Your task to perform on an android device: turn on improve location accuracy Image 0: 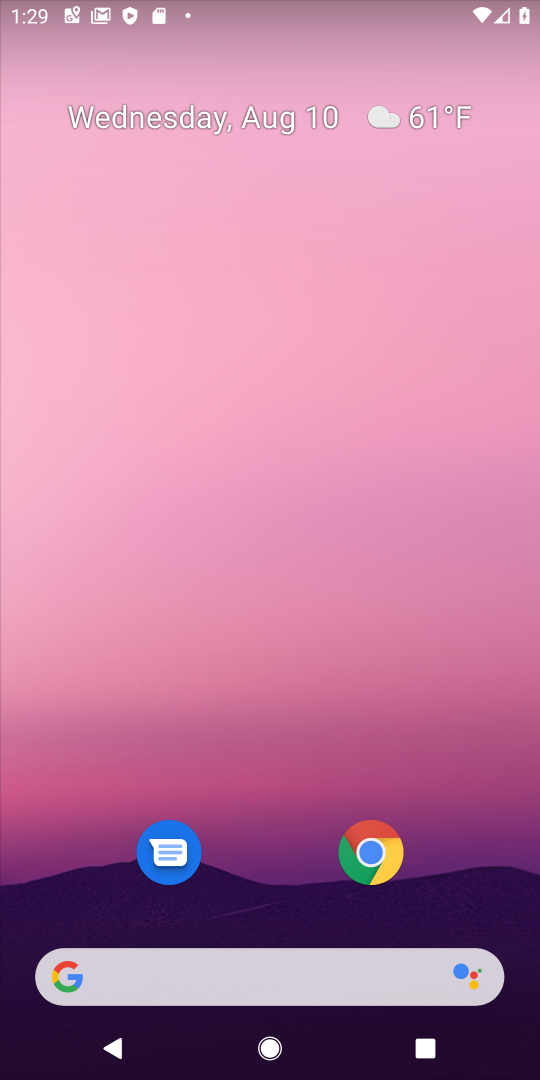
Step 0: drag from (251, 729) to (401, 49)
Your task to perform on an android device: turn on improve location accuracy Image 1: 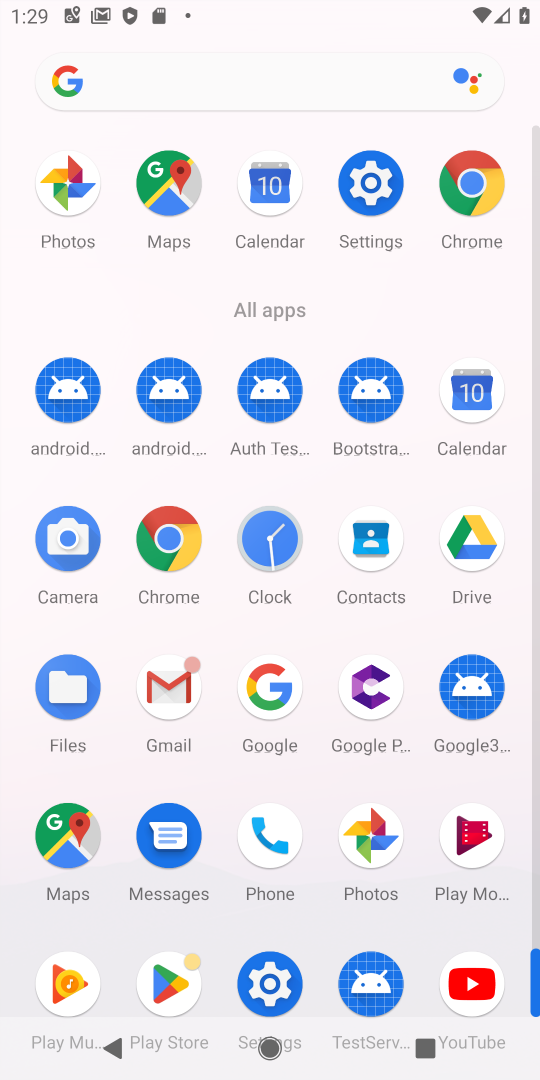
Step 1: click (380, 175)
Your task to perform on an android device: turn on improve location accuracy Image 2: 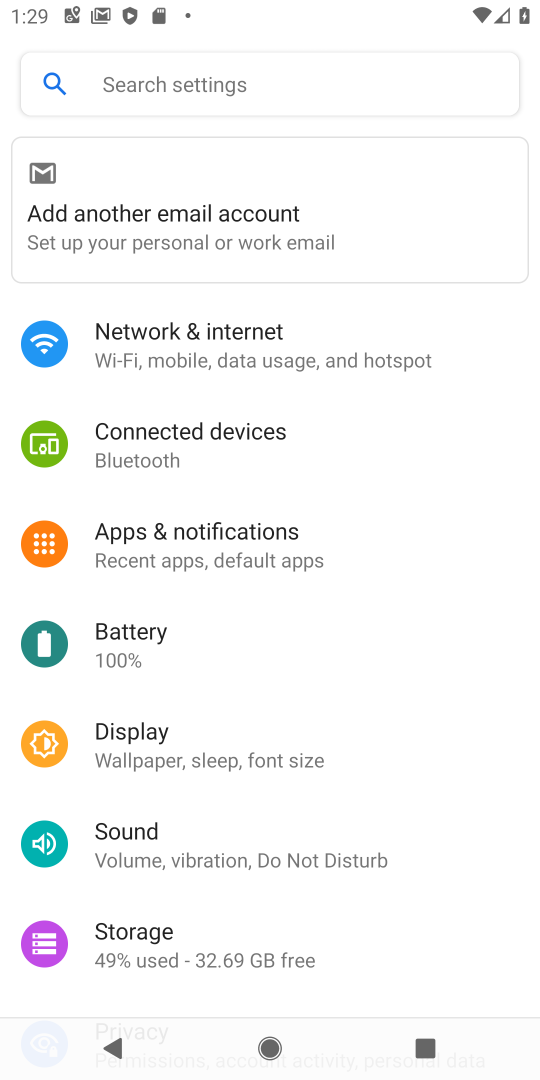
Step 2: drag from (312, 853) to (410, 392)
Your task to perform on an android device: turn on improve location accuracy Image 3: 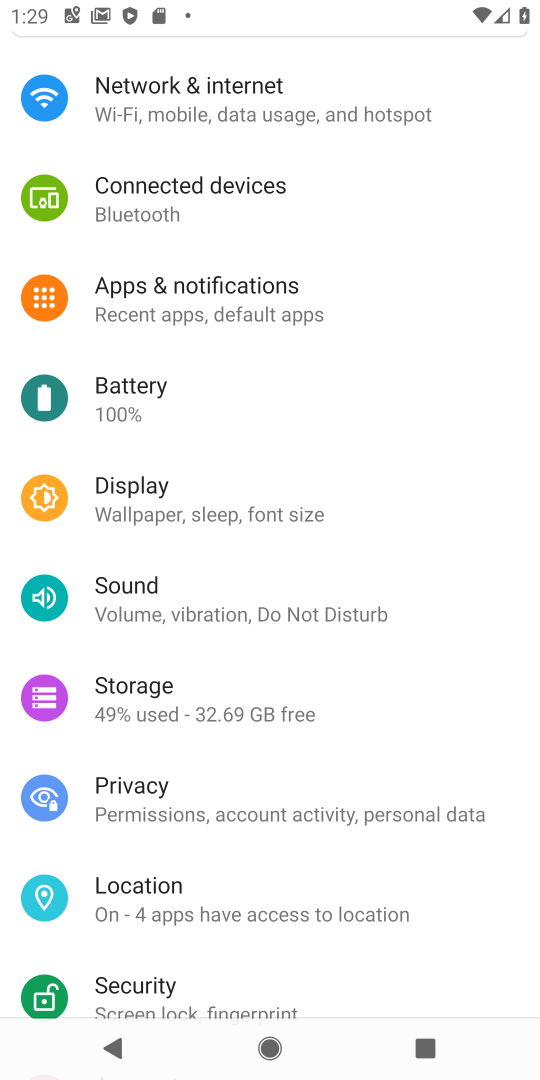
Step 3: click (139, 891)
Your task to perform on an android device: turn on improve location accuracy Image 4: 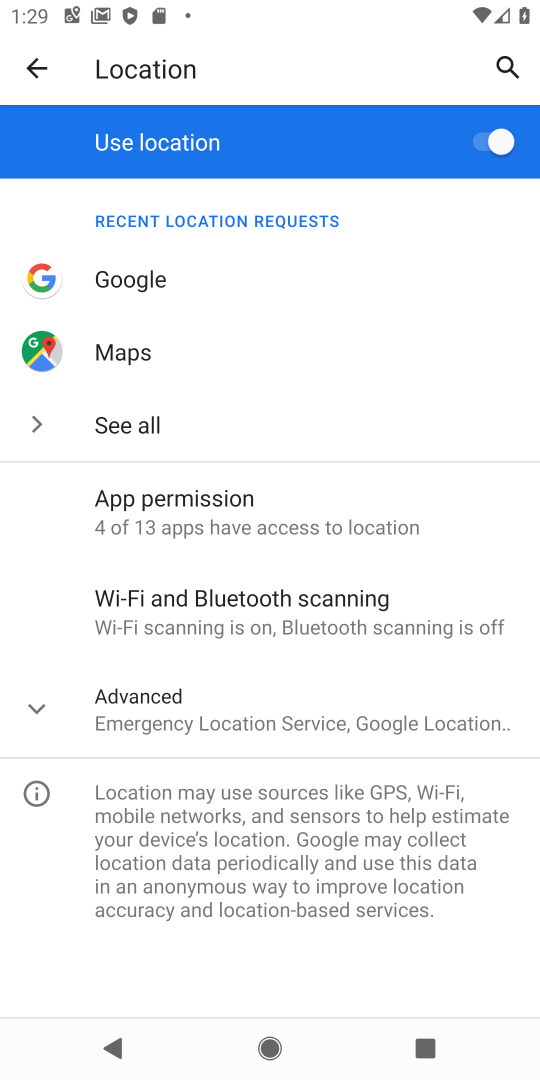
Step 4: click (220, 719)
Your task to perform on an android device: turn on improve location accuracy Image 5: 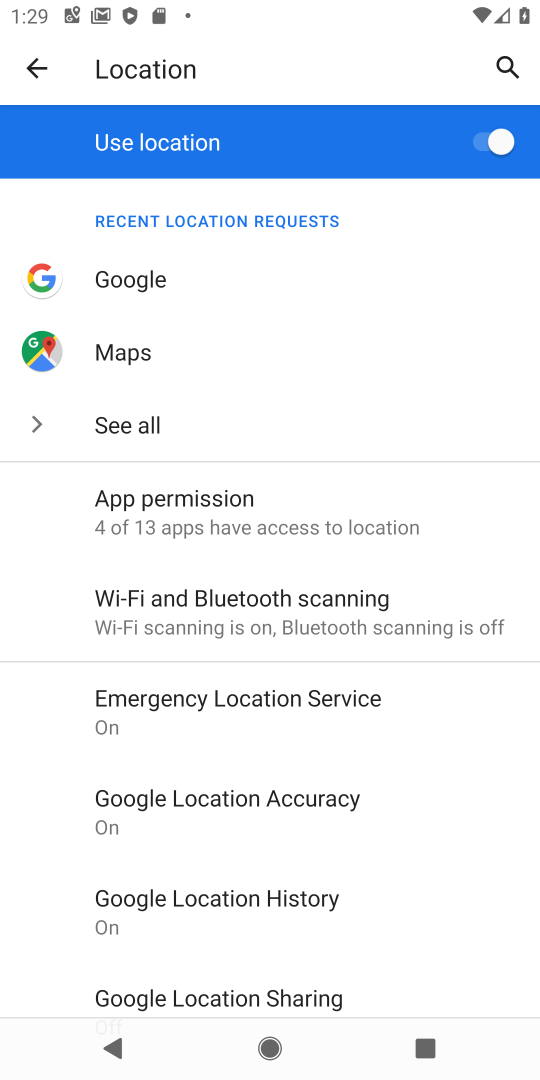
Step 5: click (269, 816)
Your task to perform on an android device: turn on improve location accuracy Image 6: 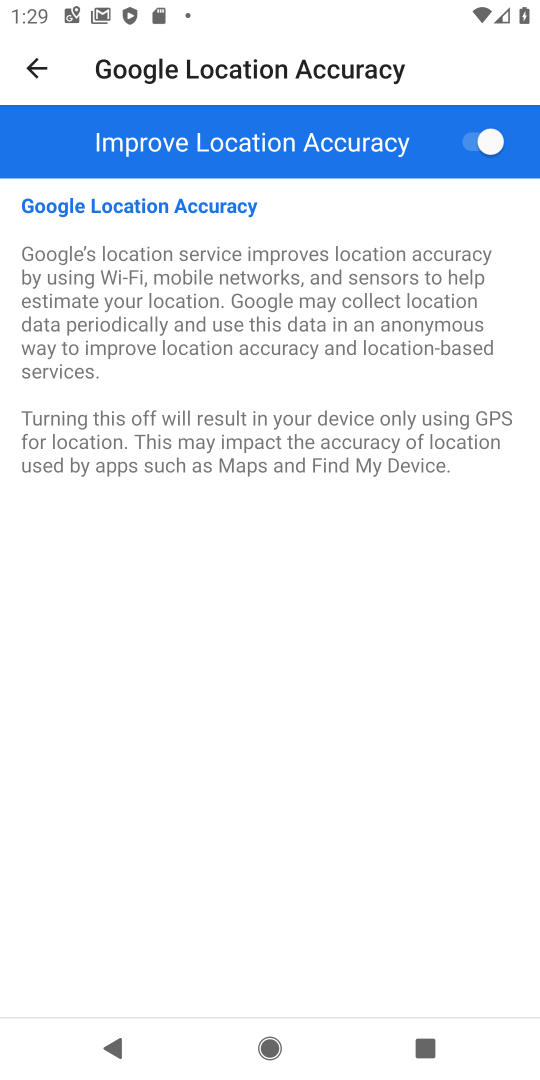
Step 6: task complete